Your task to perform on an android device: Toggle the flashlight Image 0: 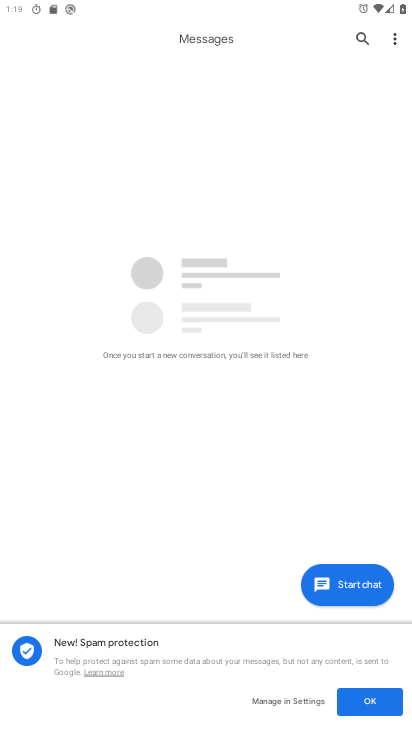
Step 0: drag from (205, 8) to (166, 497)
Your task to perform on an android device: Toggle the flashlight Image 1: 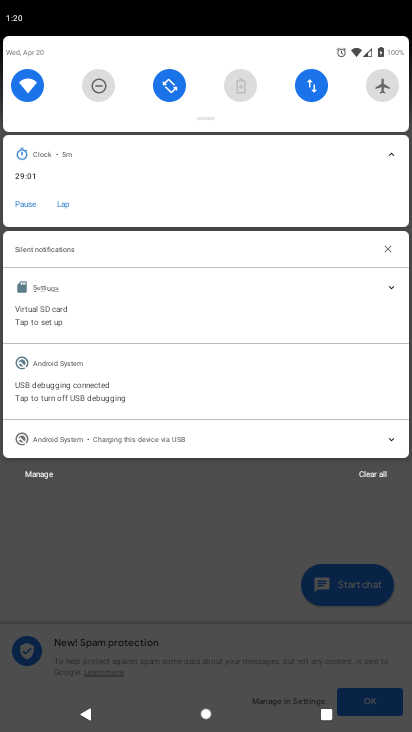
Step 1: task complete